Your task to perform on an android device: Open settings Image 0: 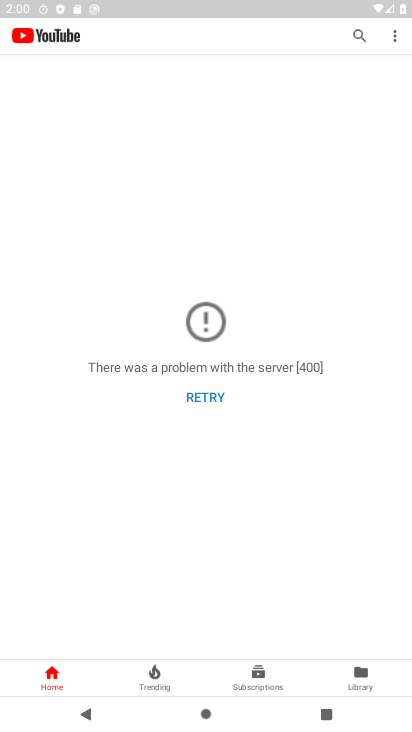
Step 0: press back button
Your task to perform on an android device: Open settings Image 1: 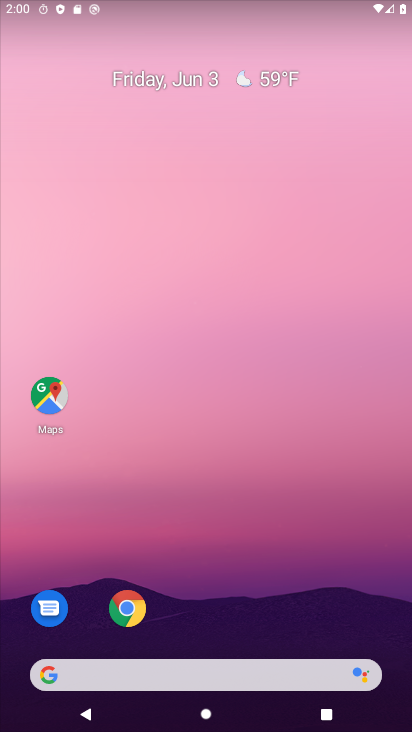
Step 1: drag from (183, 661) to (214, 353)
Your task to perform on an android device: Open settings Image 2: 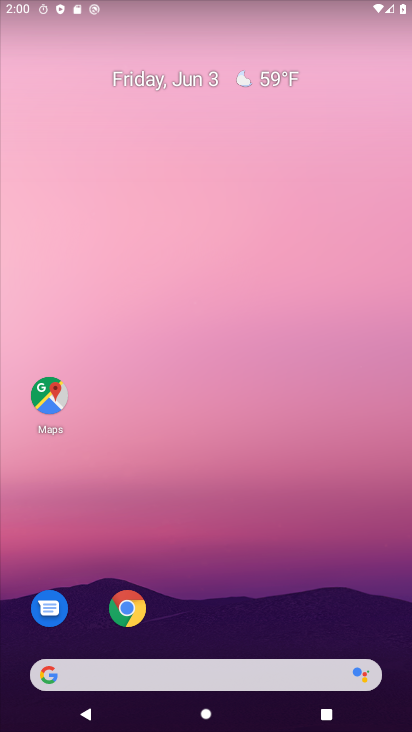
Step 2: drag from (204, 667) to (221, 337)
Your task to perform on an android device: Open settings Image 3: 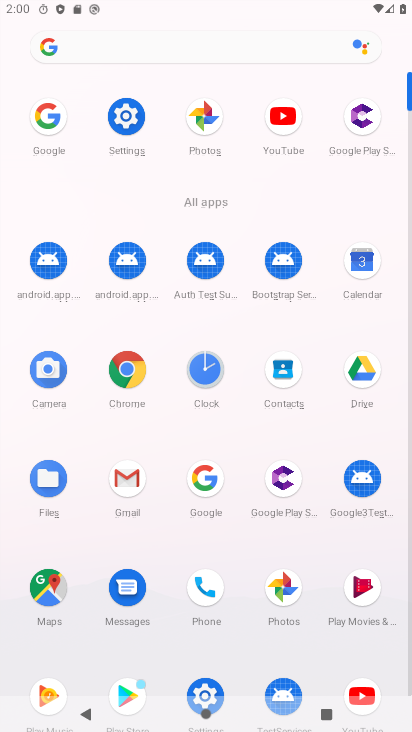
Step 3: click (122, 137)
Your task to perform on an android device: Open settings Image 4: 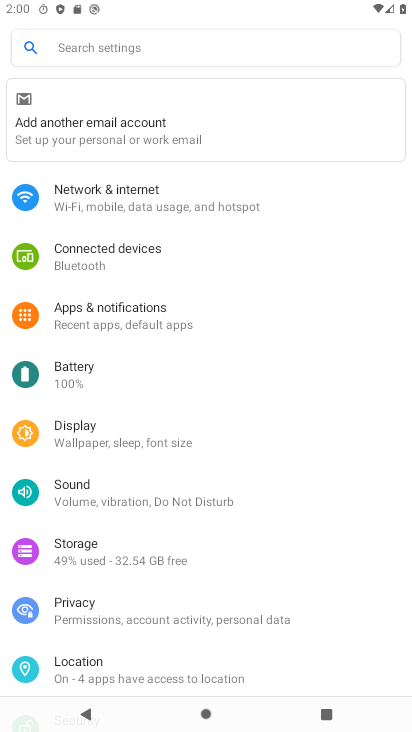
Step 4: task complete